Your task to perform on an android device: Go to calendar. Show me events next week Image 0: 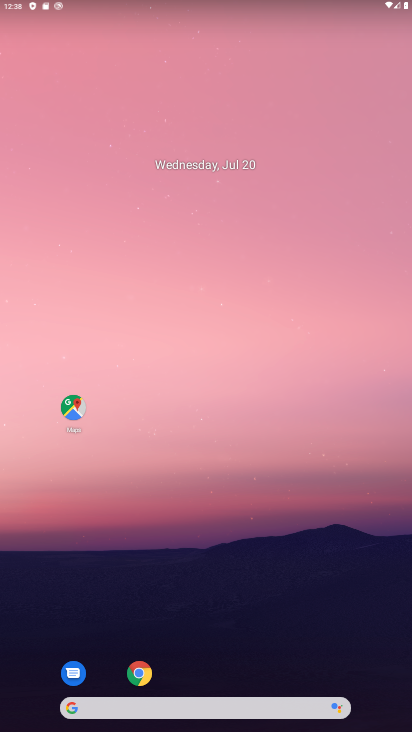
Step 0: click (233, 179)
Your task to perform on an android device: Go to calendar. Show me events next week Image 1: 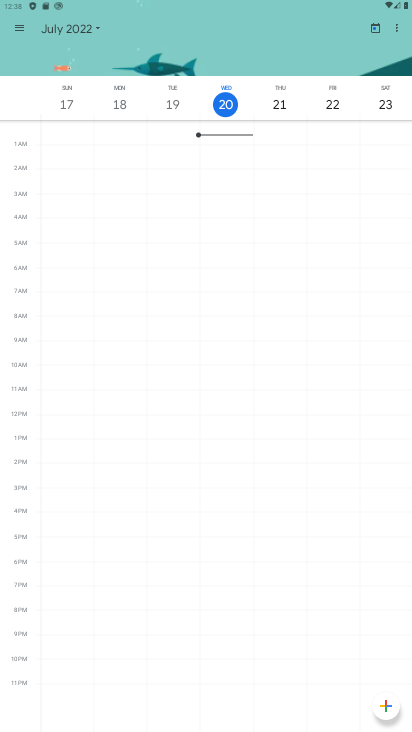
Step 1: click (82, 27)
Your task to perform on an android device: Go to calendar. Show me events next week Image 2: 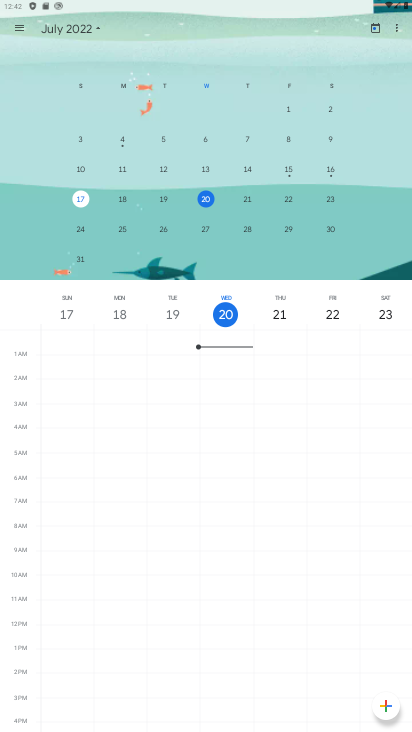
Step 2: task complete